Your task to perform on an android device: turn off data saver in the chrome app Image 0: 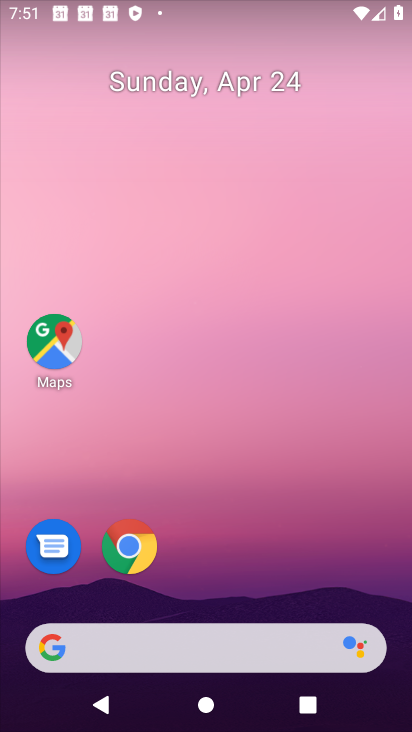
Step 0: drag from (253, 550) to (301, 14)
Your task to perform on an android device: turn off data saver in the chrome app Image 1: 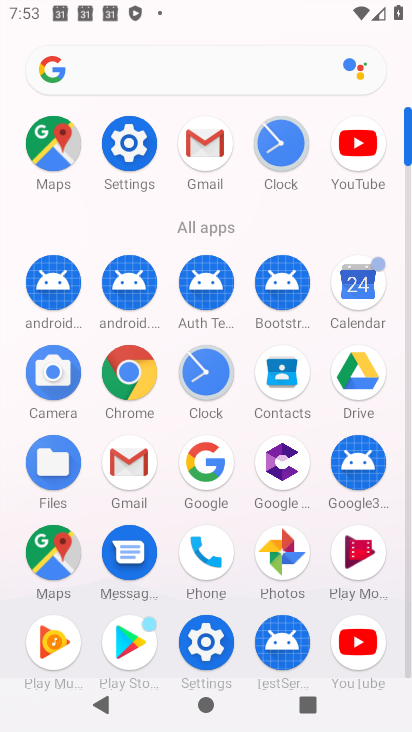
Step 1: click (141, 386)
Your task to perform on an android device: turn off data saver in the chrome app Image 2: 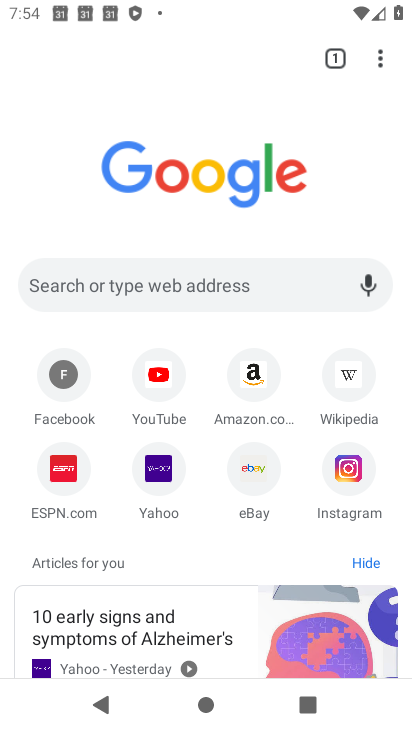
Step 2: click (381, 59)
Your task to perform on an android device: turn off data saver in the chrome app Image 3: 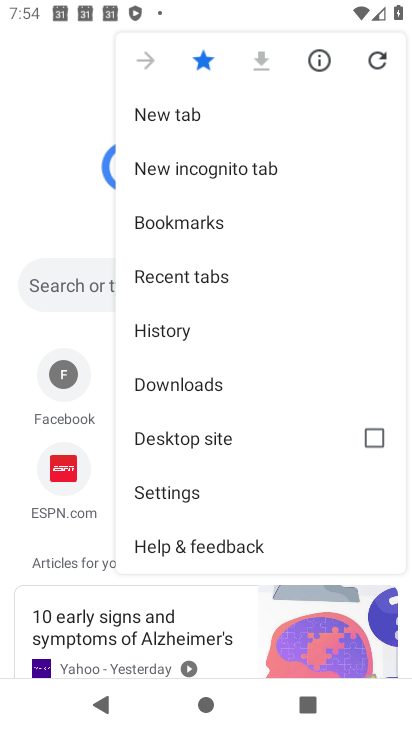
Step 3: click (230, 500)
Your task to perform on an android device: turn off data saver in the chrome app Image 4: 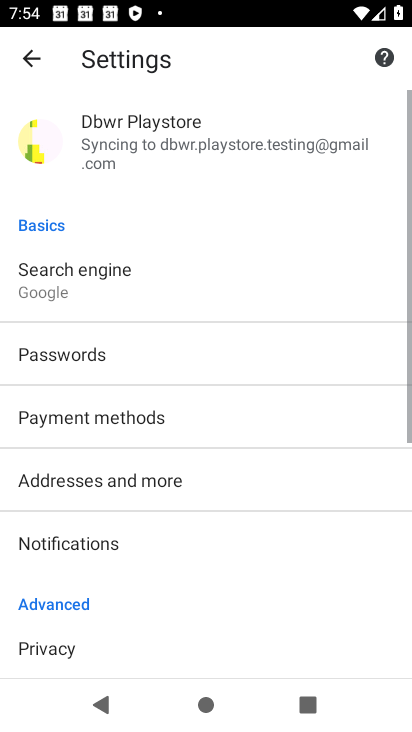
Step 4: drag from (231, 594) to (291, 138)
Your task to perform on an android device: turn off data saver in the chrome app Image 5: 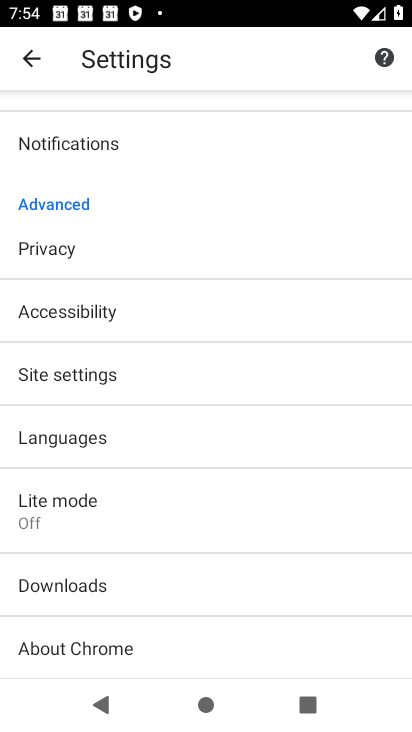
Step 5: click (210, 445)
Your task to perform on an android device: turn off data saver in the chrome app Image 6: 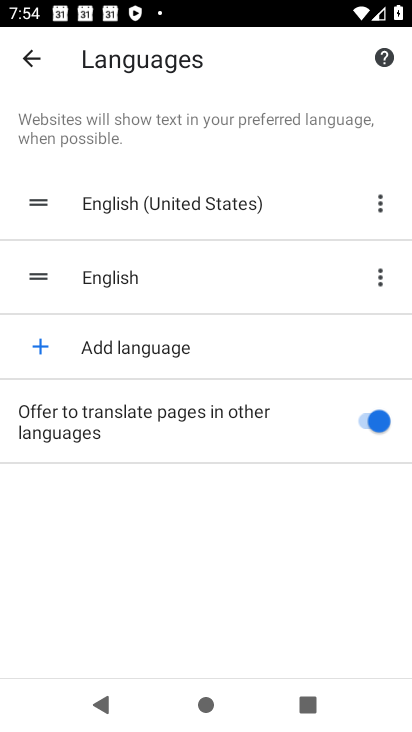
Step 6: click (30, 75)
Your task to perform on an android device: turn off data saver in the chrome app Image 7: 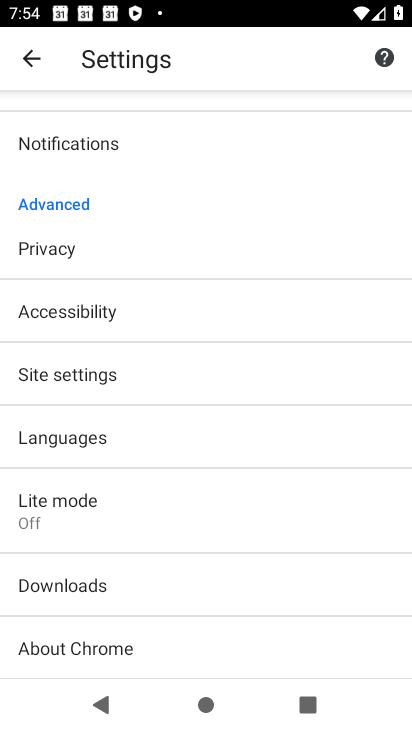
Step 7: click (125, 521)
Your task to perform on an android device: turn off data saver in the chrome app Image 8: 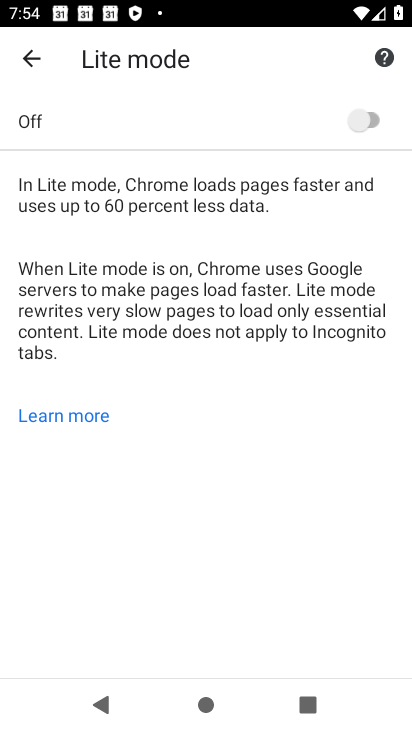
Step 8: task complete